Your task to perform on an android device: Search for hotels in Mexico city Image 0: 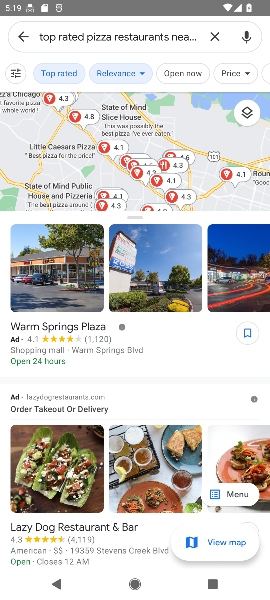
Step 0: press home button
Your task to perform on an android device: Search for hotels in Mexico city Image 1: 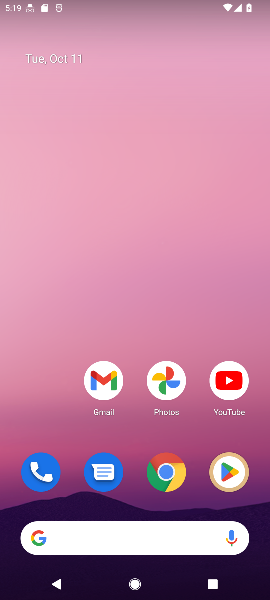
Step 1: click (170, 459)
Your task to perform on an android device: Search for hotels in Mexico city Image 2: 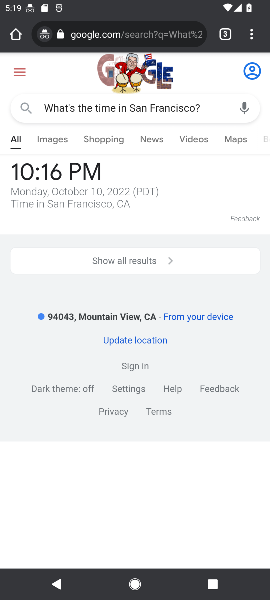
Step 2: click (134, 34)
Your task to perform on an android device: Search for hotels in Mexico city Image 3: 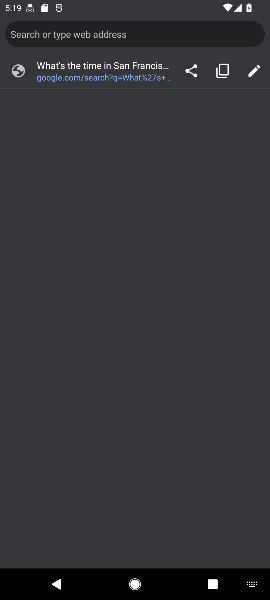
Step 3: type " hotels in Mexico city"
Your task to perform on an android device: Search for hotels in Mexico city Image 4: 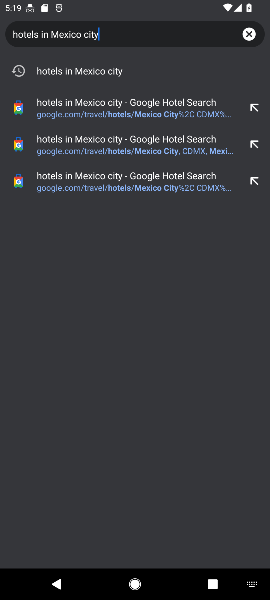
Step 4: click (63, 59)
Your task to perform on an android device: Search for hotels in Mexico city Image 5: 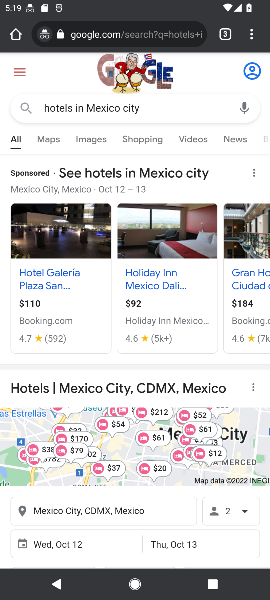
Step 5: task complete